Your task to perform on an android device: check the backup settings in the google photos Image 0: 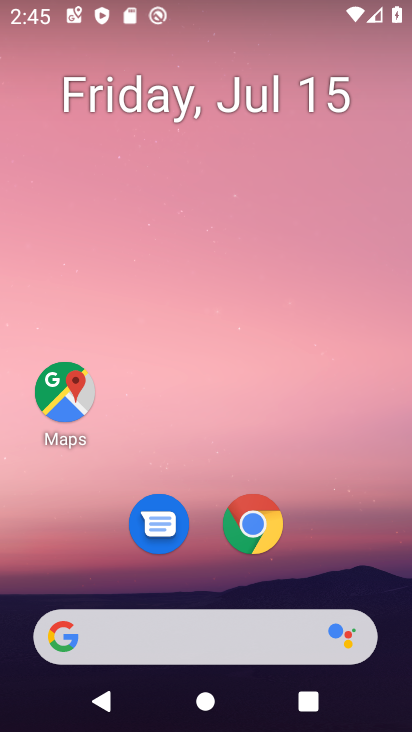
Step 0: drag from (222, 605) to (310, 45)
Your task to perform on an android device: check the backup settings in the google photos Image 1: 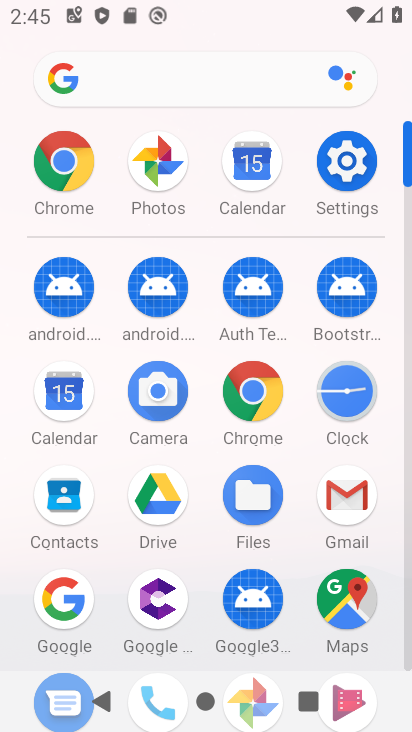
Step 1: drag from (198, 632) to (290, 167)
Your task to perform on an android device: check the backup settings in the google photos Image 2: 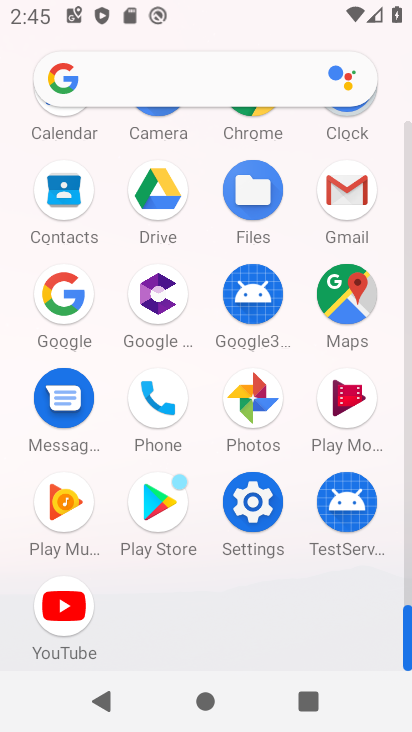
Step 2: click (246, 398)
Your task to perform on an android device: check the backup settings in the google photos Image 3: 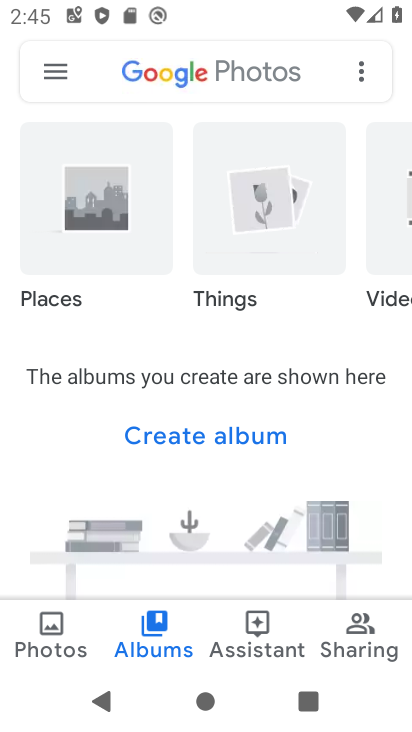
Step 3: click (57, 66)
Your task to perform on an android device: check the backup settings in the google photos Image 4: 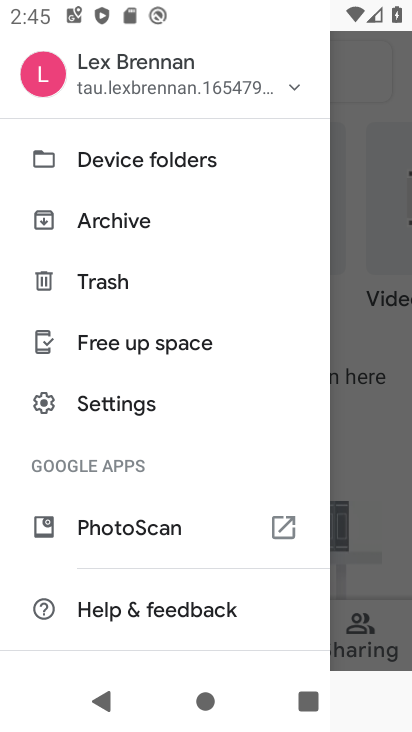
Step 4: click (129, 404)
Your task to perform on an android device: check the backup settings in the google photos Image 5: 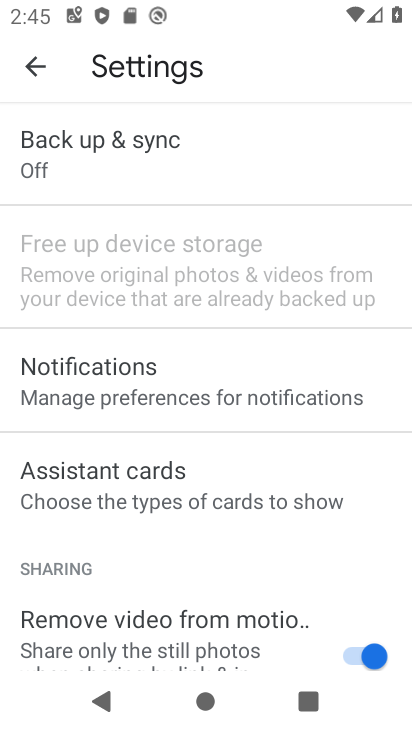
Step 5: click (78, 166)
Your task to perform on an android device: check the backup settings in the google photos Image 6: 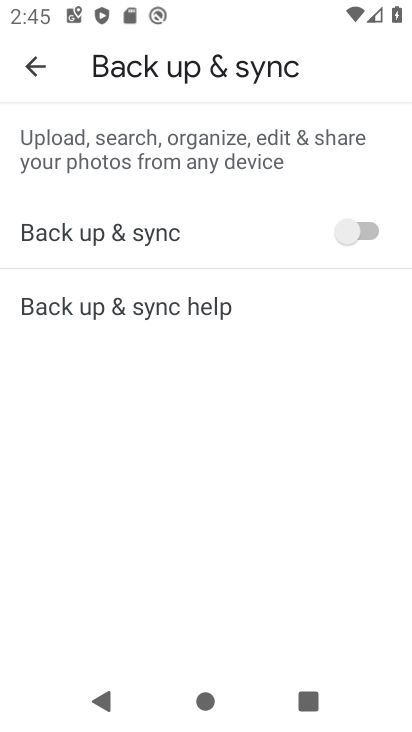
Step 6: click (372, 225)
Your task to perform on an android device: check the backup settings in the google photos Image 7: 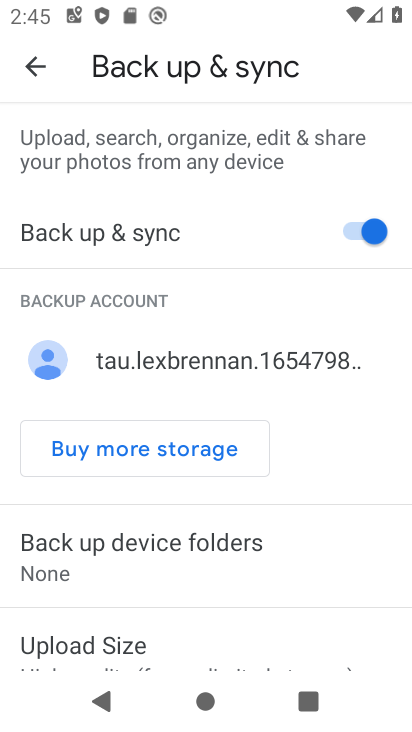
Step 7: task complete